Your task to perform on an android device: open wifi settings Image 0: 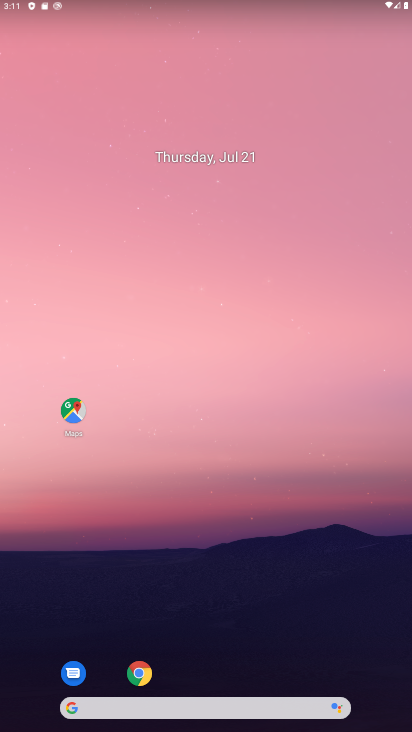
Step 0: drag from (209, 342) to (188, 83)
Your task to perform on an android device: open wifi settings Image 1: 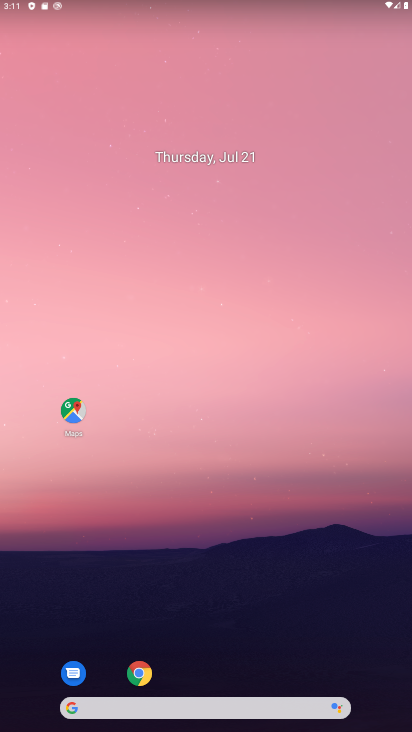
Step 1: drag from (182, 123) to (164, 162)
Your task to perform on an android device: open wifi settings Image 2: 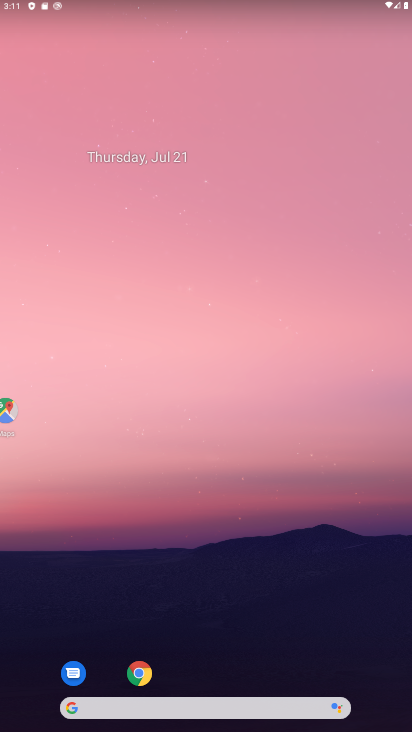
Step 2: drag from (183, 629) to (157, 70)
Your task to perform on an android device: open wifi settings Image 3: 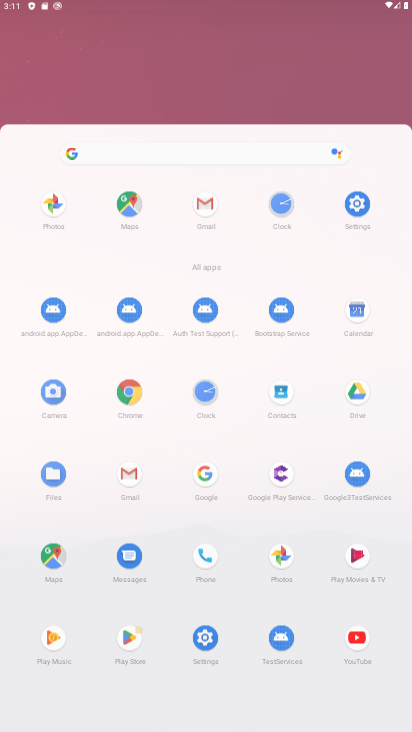
Step 3: drag from (224, 293) to (223, 191)
Your task to perform on an android device: open wifi settings Image 4: 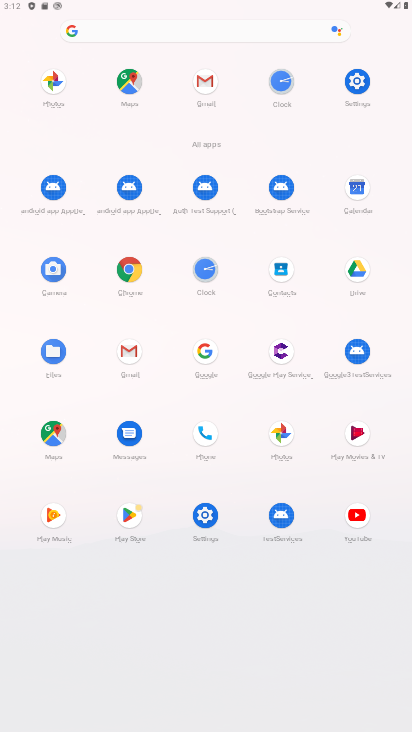
Step 4: click (351, 91)
Your task to perform on an android device: open wifi settings Image 5: 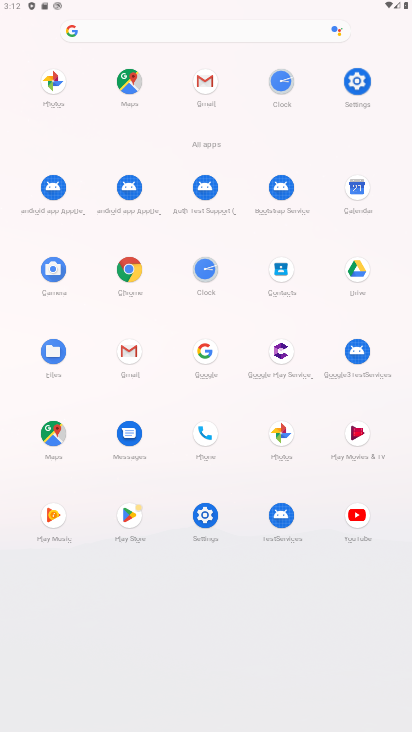
Step 5: click (355, 83)
Your task to perform on an android device: open wifi settings Image 6: 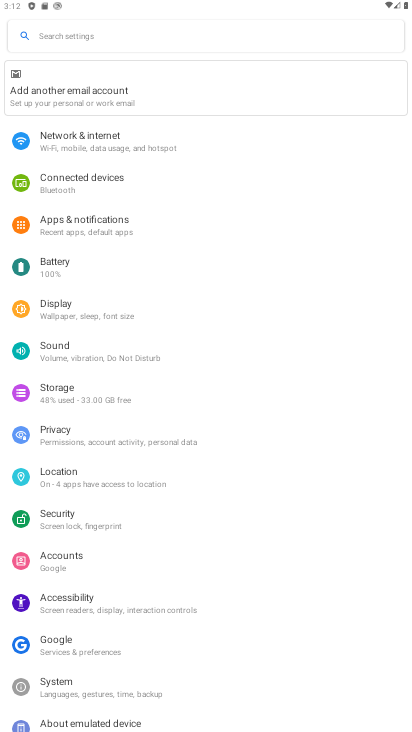
Step 6: click (77, 133)
Your task to perform on an android device: open wifi settings Image 7: 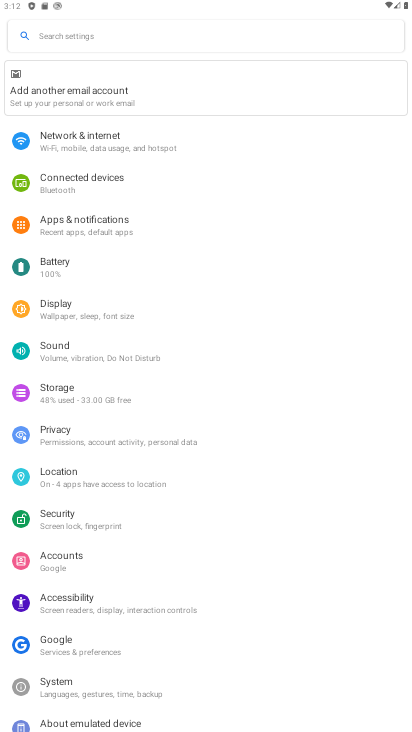
Step 7: click (77, 131)
Your task to perform on an android device: open wifi settings Image 8: 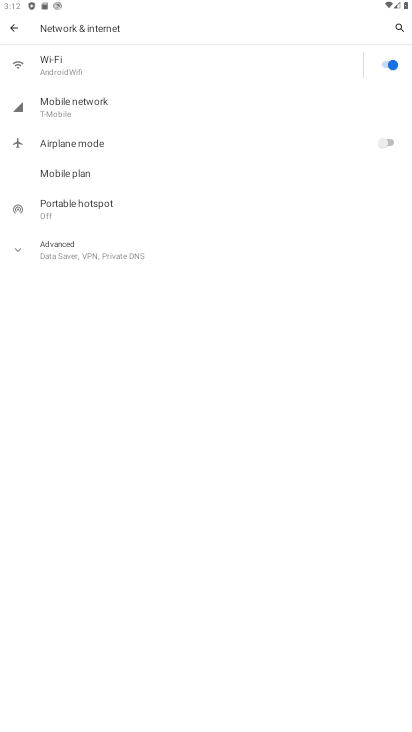
Step 8: task complete